Your task to perform on an android device: Open Google Image 0: 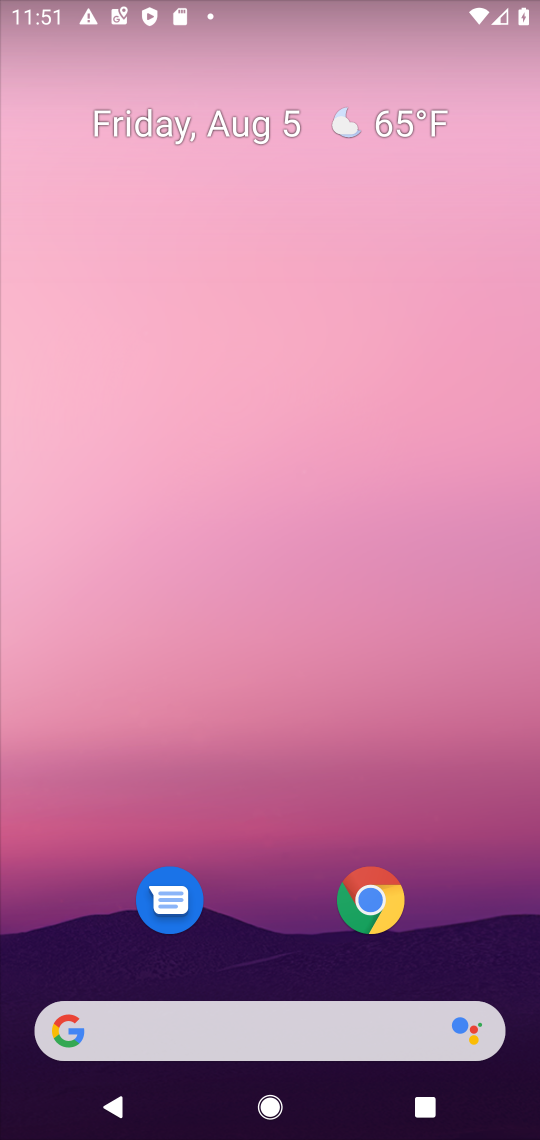
Step 0: drag from (256, 629) to (257, 312)
Your task to perform on an android device: Open Google Image 1: 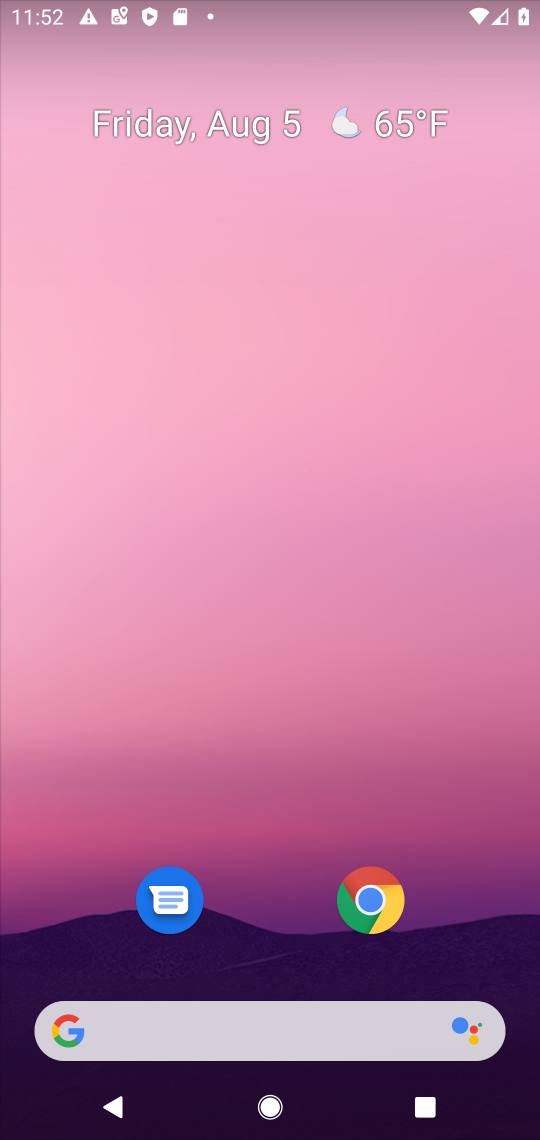
Step 1: drag from (255, 869) to (211, 69)
Your task to perform on an android device: Open Google Image 2: 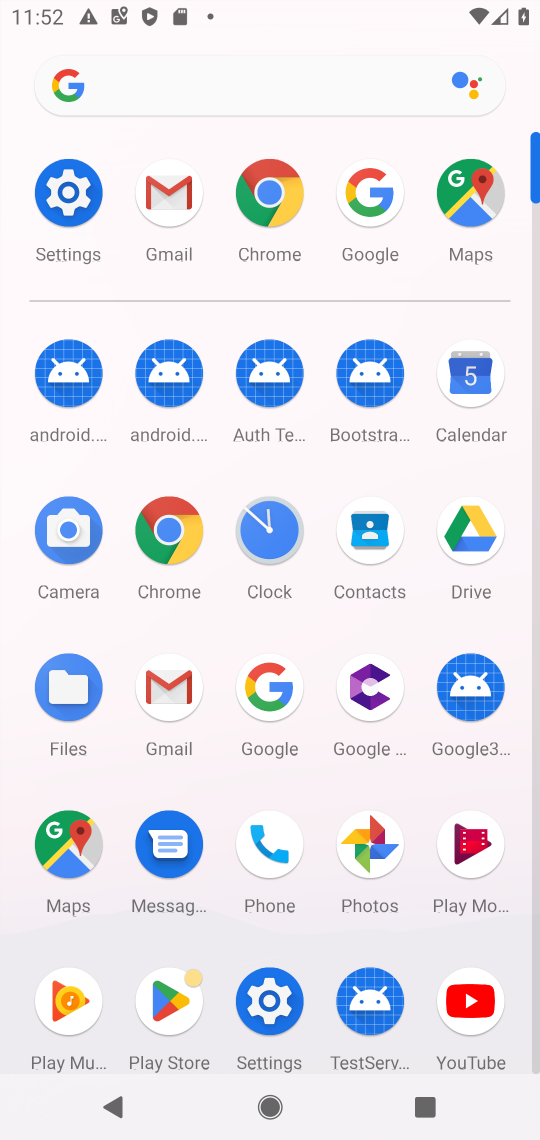
Step 2: click (268, 690)
Your task to perform on an android device: Open Google Image 3: 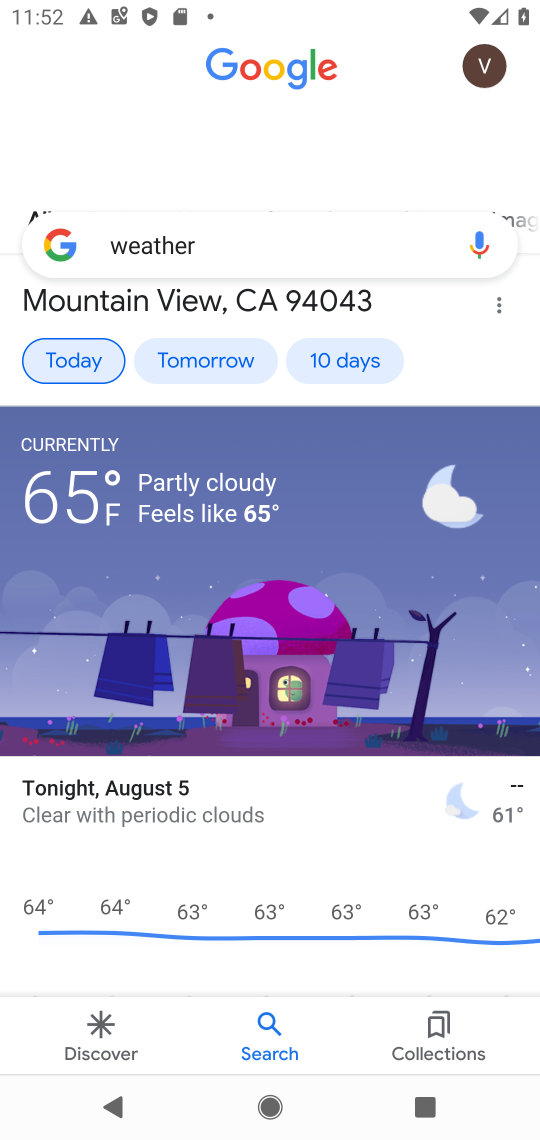
Step 3: task complete